Your task to perform on an android device: open chrome privacy settings Image 0: 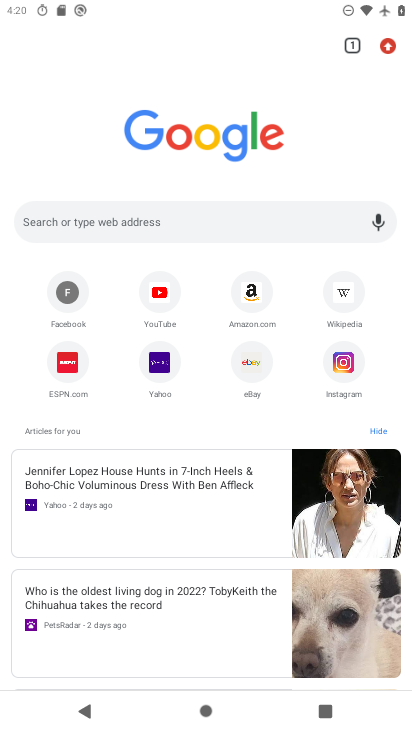
Step 0: click (395, 49)
Your task to perform on an android device: open chrome privacy settings Image 1: 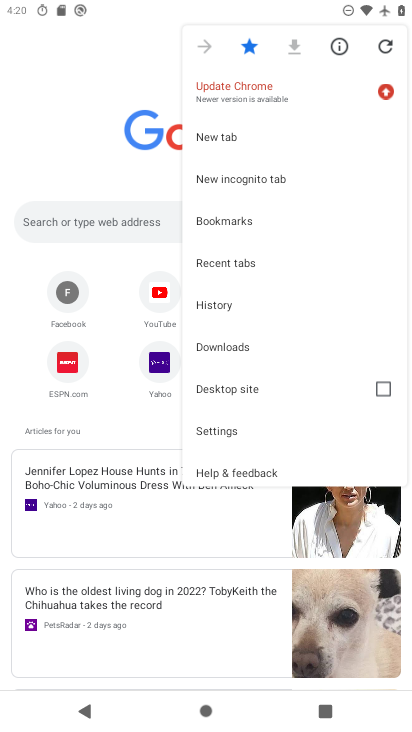
Step 1: click (223, 418)
Your task to perform on an android device: open chrome privacy settings Image 2: 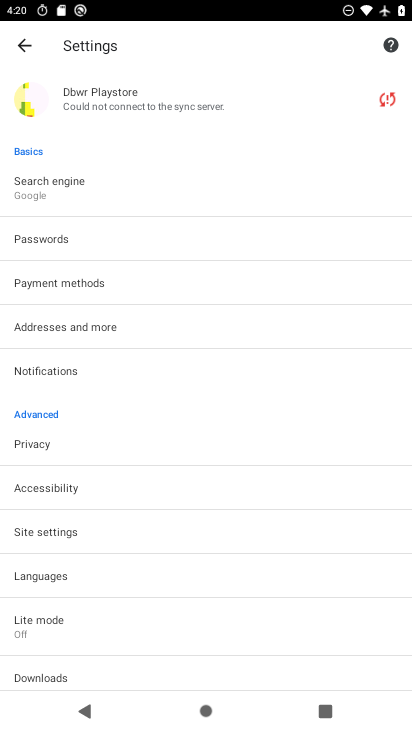
Step 2: drag from (210, 550) to (223, 297)
Your task to perform on an android device: open chrome privacy settings Image 3: 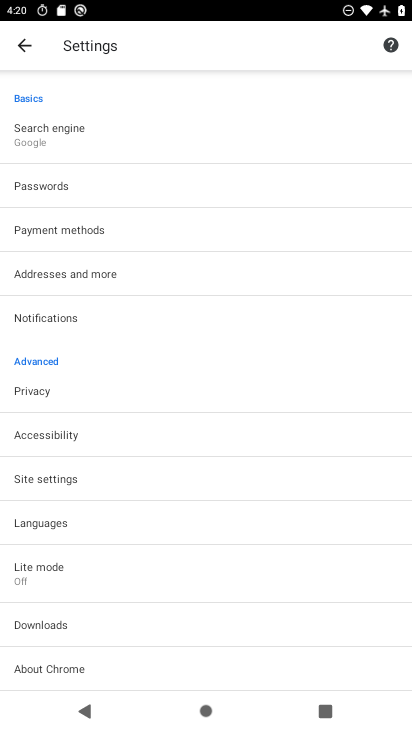
Step 3: click (34, 392)
Your task to perform on an android device: open chrome privacy settings Image 4: 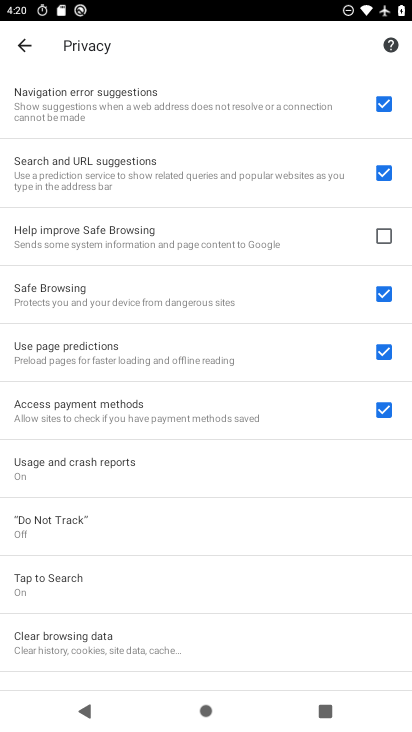
Step 4: task complete